Your task to perform on an android device: Open Google Maps and go to "Timeline" Image 0: 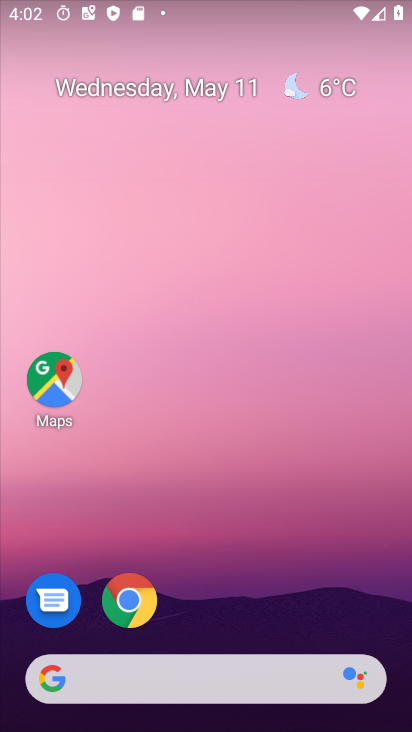
Step 0: drag from (331, 601) to (223, 158)
Your task to perform on an android device: Open Google Maps and go to "Timeline" Image 1: 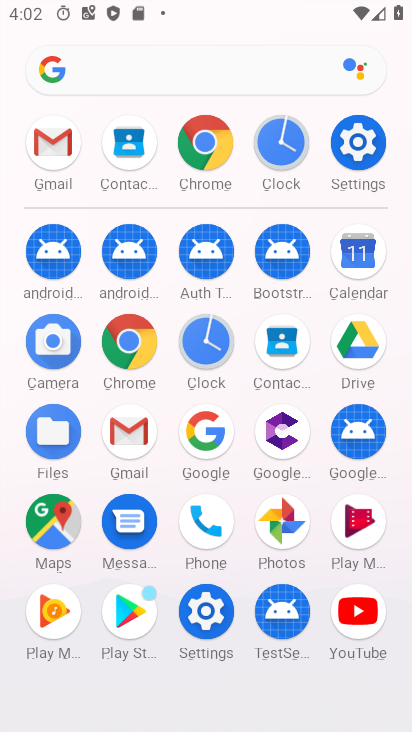
Step 1: click (59, 516)
Your task to perform on an android device: Open Google Maps and go to "Timeline" Image 2: 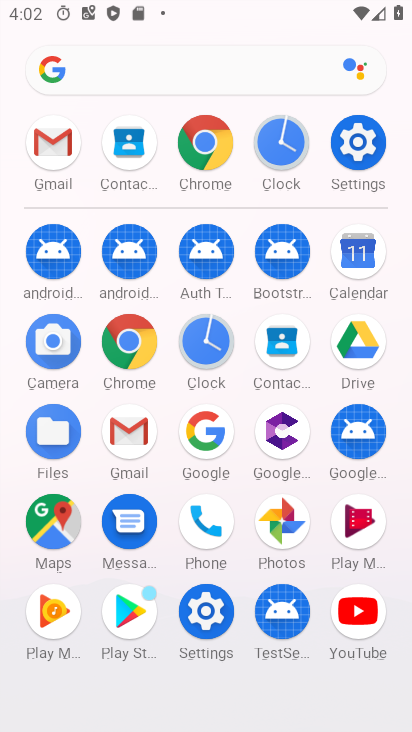
Step 2: click (61, 520)
Your task to perform on an android device: Open Google Maps and go to "Timeline" Image 3: 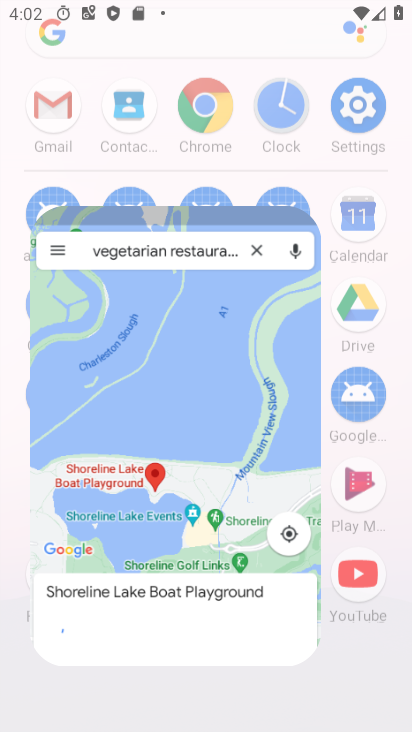
Step 3: click (60, 521)
Your task to perform on an android device: Open Google Maps and go to "Timeline" Image 4: 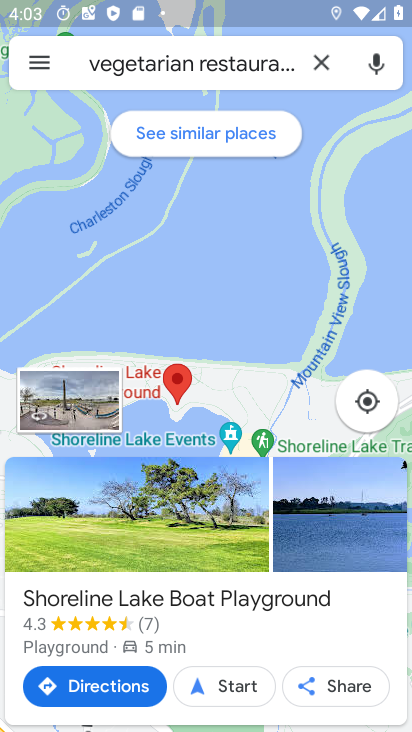
Step 4: click (41, 63)
Your task to perform on an android device: Open Google Maps and go to "Timeline" Image 5: 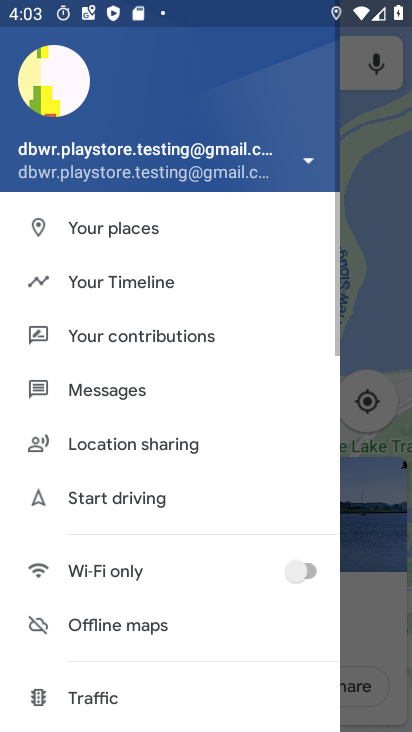
Step 5: click (142, 278)
Your task to perform on an android device: Open Google Maps and go to "Timeline" Image 6: 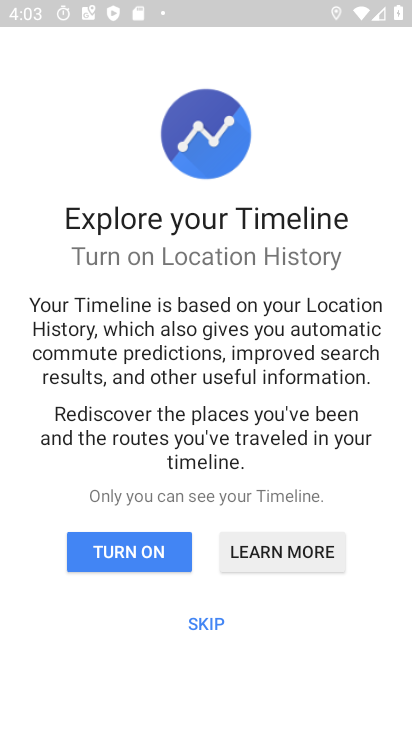
Step 6: click (128, 544)
Your task to perform on an android device: Open Google Maps and go to "Timeline" Image 7: 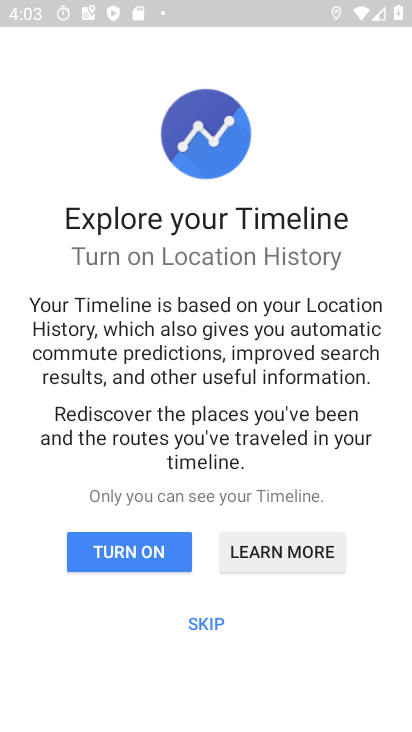
Step 7: click (129, 545)
Your task to perform on an android device: Open Google Maps and go to "Timeline" Image 8: 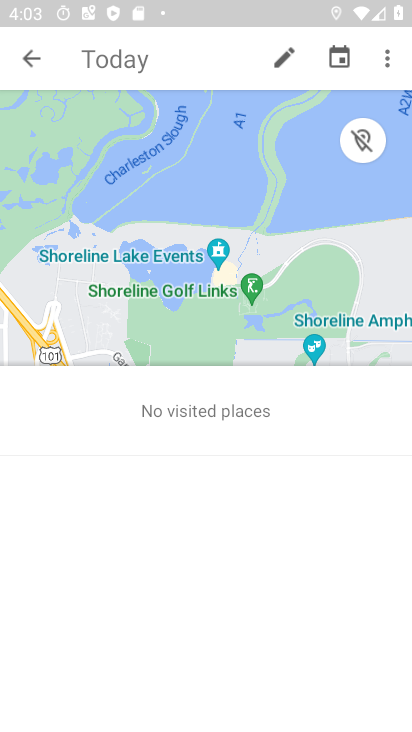
Step 8: task complete